Your task to perform on an android device: check storage Image 0: 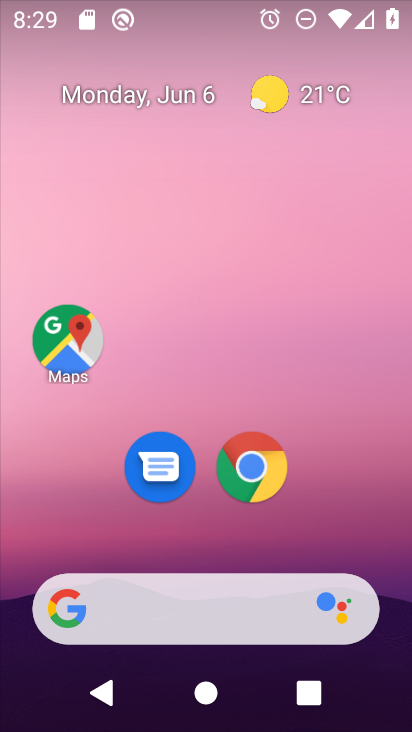
Step 0: drag from (364, 537) to (361, 124)
Your task to perform on an android device: check storage Image 1: 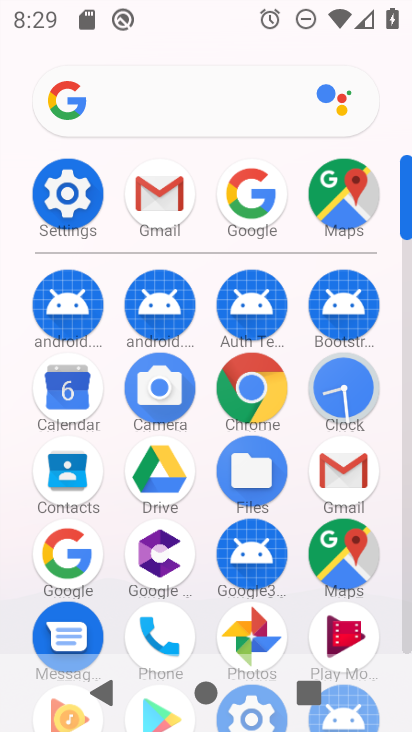
Step 1: click (70, 208)
Your task to perform on an android device: check storage Image 2: 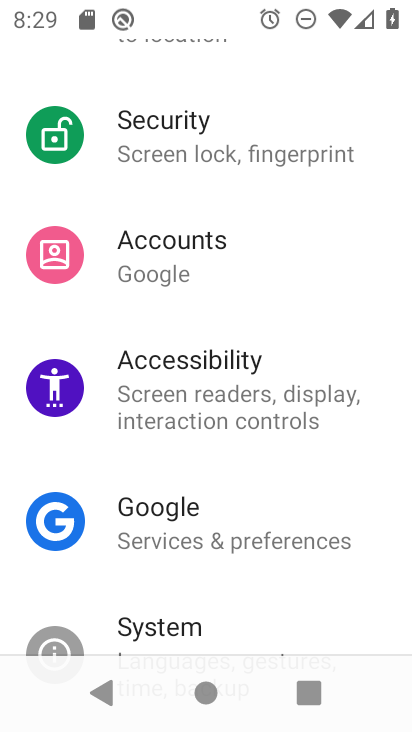
Step 2: drag from (362, 234) to (361, 335)
Your task to perform on an android device: check storage Image 3: 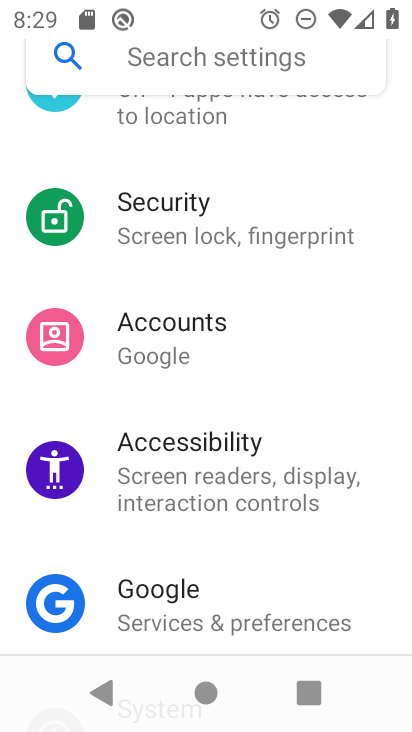
Step 3: drag from (363, 181) to (360, 309)
Your task to perform on an android device: check storage Image 4: 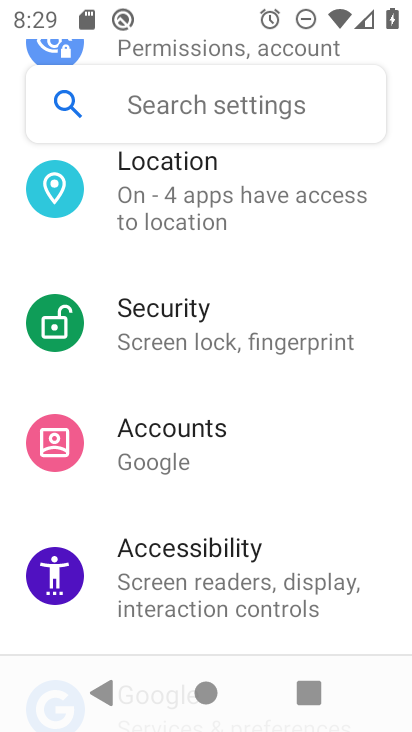
Step 4: drag from (371, 173) to (367, 297)
Your task to perform on an android device: check storage Image 5: 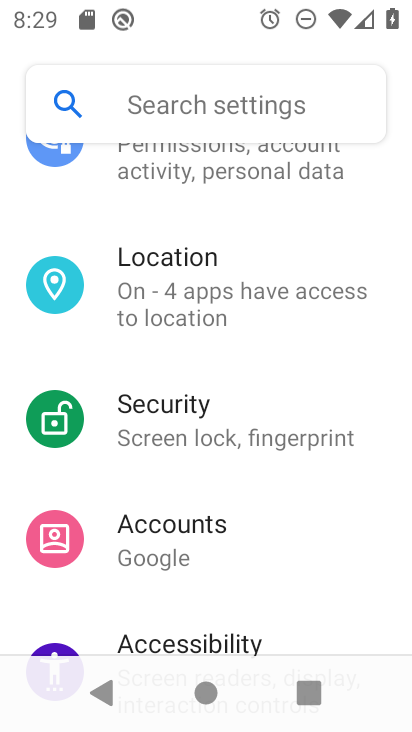
Step 5: drag from (365, 174) to (371, 319)
Your task to perform on an android device: check storage Image 6: 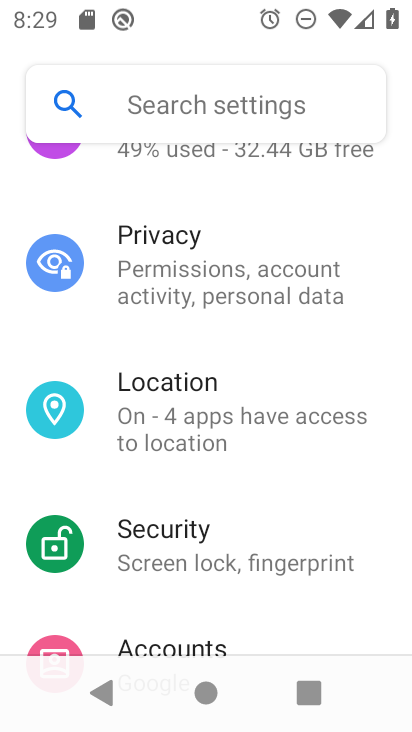
Step 6: drag from (371, 186) to (375, 320)
Your task to perform on an android device: check storage Image 7: 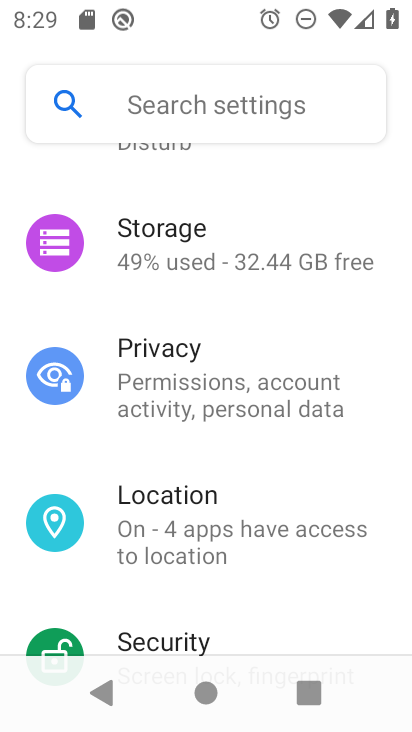
Step 7: drag from (370, 172) to (364, 360)
Your task to perform on an android device: check storage Image 8: 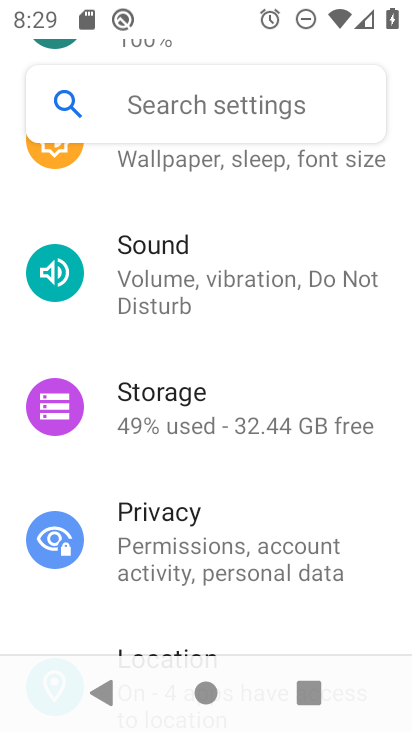
Step 8: click (233, 433)
Your task to perform on an android device: check storage Image 9: 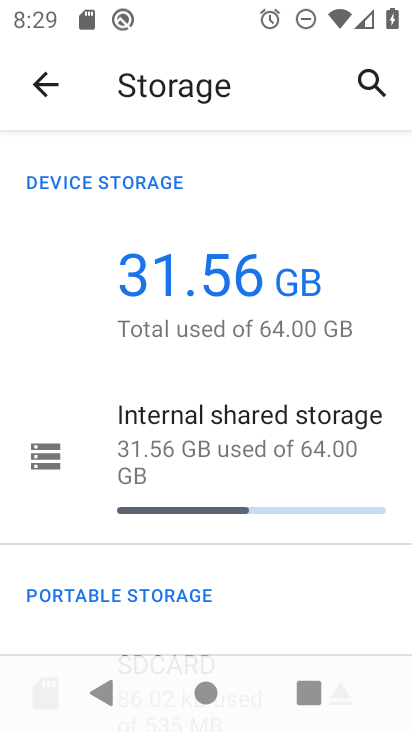
Step 9: task complete